Your task to perform on an android device: Search for pizza restaurants on Maps Image 0: 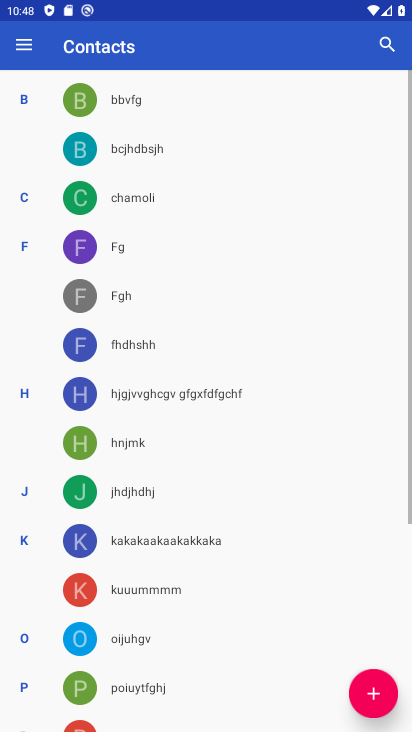
Step 0: drag from (201, 697) to (126, 222)
Your task to perform on an android device: Search for pizza restaurants on Maps Image 1: 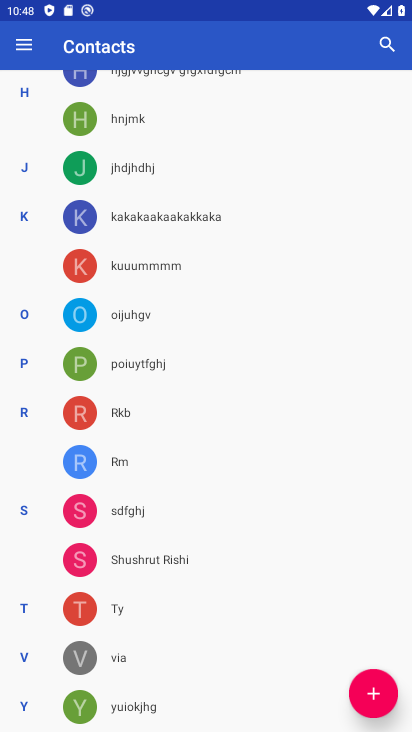
Step 1: press home button
Your task to perform on an android device: Search for pizza restaurants on Maps Image 2: 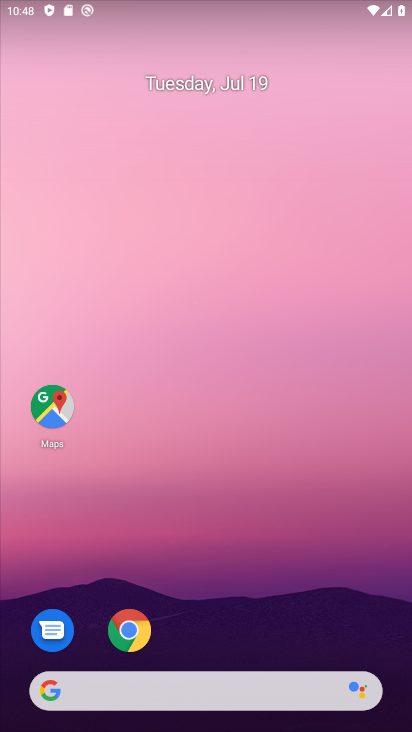
Step 2: click (66, 425)
Your task to perform on an android device: Search for pizza restaurants on Maps Image 3: 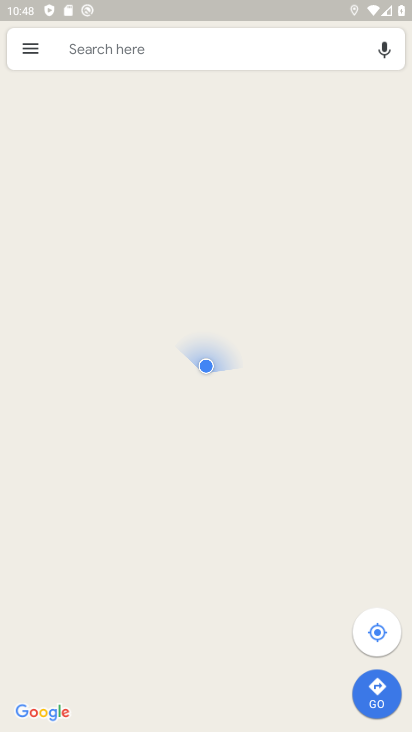
Step 3: click (148, 50)
Your task to perform on an android device: Search for pizza restaurants on Maps Image 4: 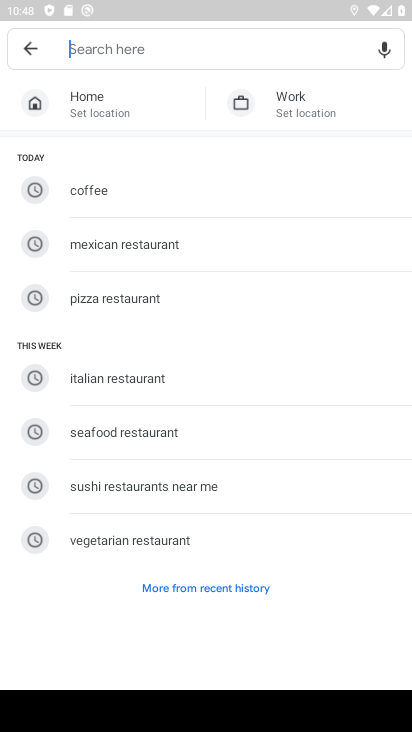
Step 4: type "pizza restaurants"
Your task to perform on an android device: Search for pizza restaurants on Maps Image 5: 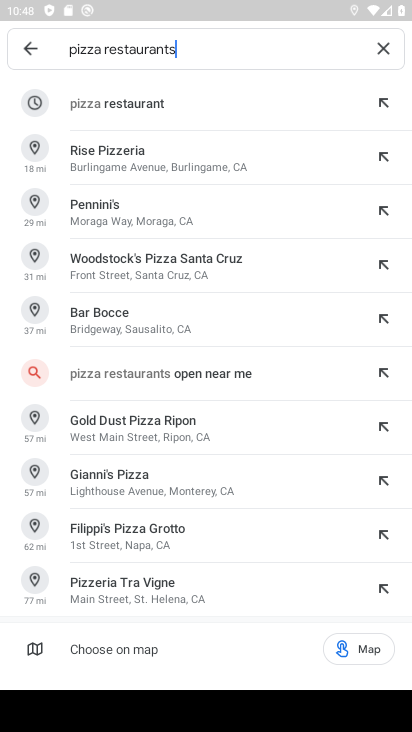
Step 5: click (154, 112)
Your task to perform on an android device: Search for pizza restaurants on Maps Image 6: 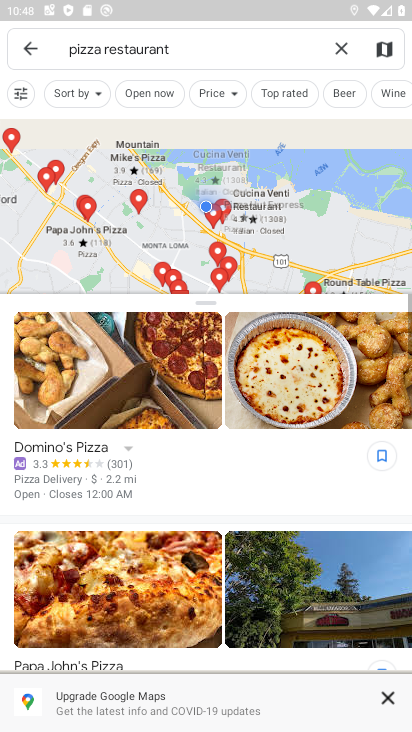
Step 6: task complete